Your task to perform on an android device: turn on notifications settings in the gmail app Image 0: 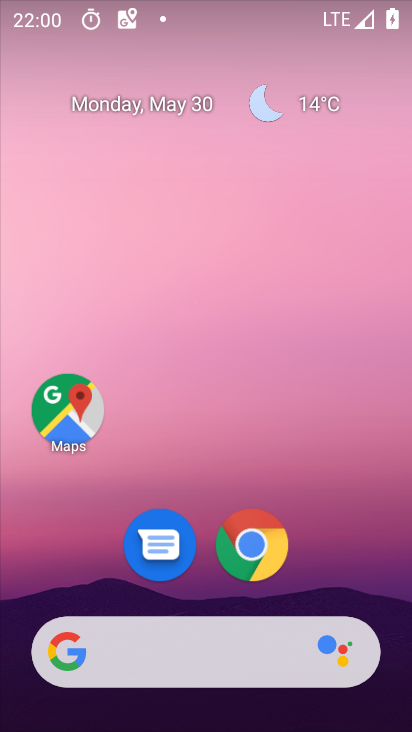
Step 0: drag from (329, 585) to (353, 105)
Your task to perform on an android device: turn on notifications settings in the gmail app Image 1: 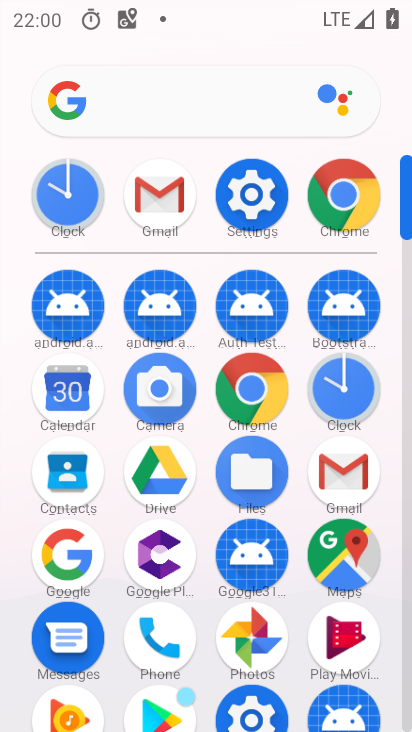
Step 1: click (351, 480)
Your task to perform on an android device: turn on notifications settings in the gmail app Image 2: 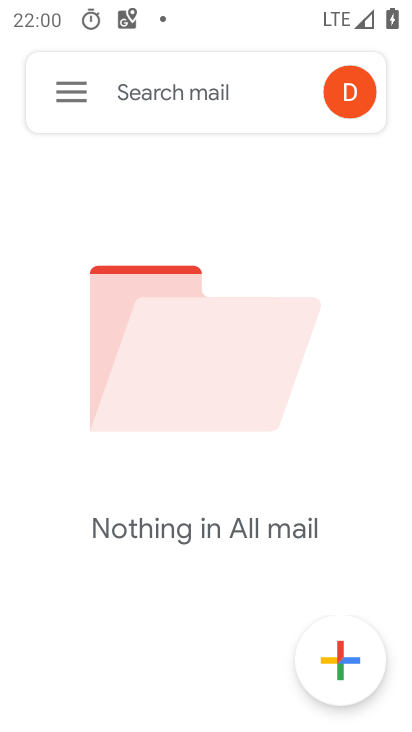
Step 2: click (71, 98)
Your task to perform on an android device: turn on notifications settings in the gmail app Image 3: 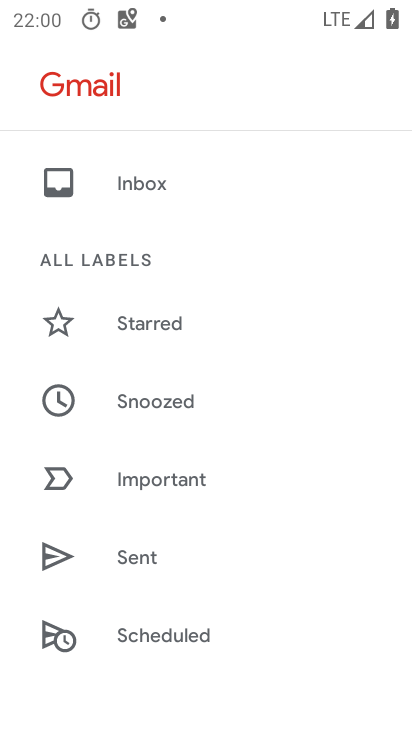
Step 3: drag from (251, 662) to (253, 244)
Your task to perform on an android device: turn on notifications settings in the gmail app Image 4: 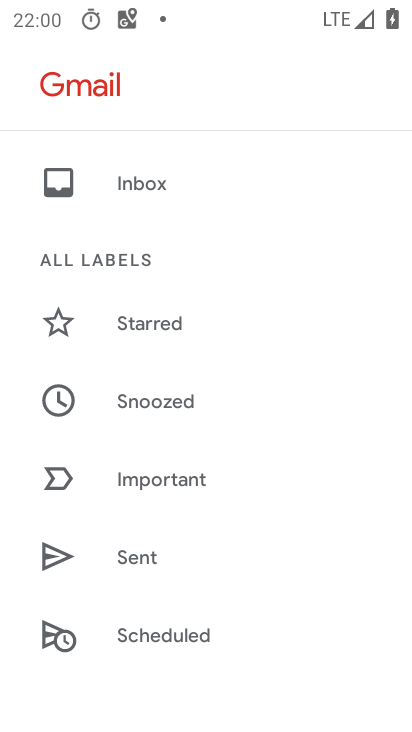
Step 4: drag from (235, 613) to (288, 205)
Your task to perform on an android device: turn on notifications settings in the gmail app Image 5: 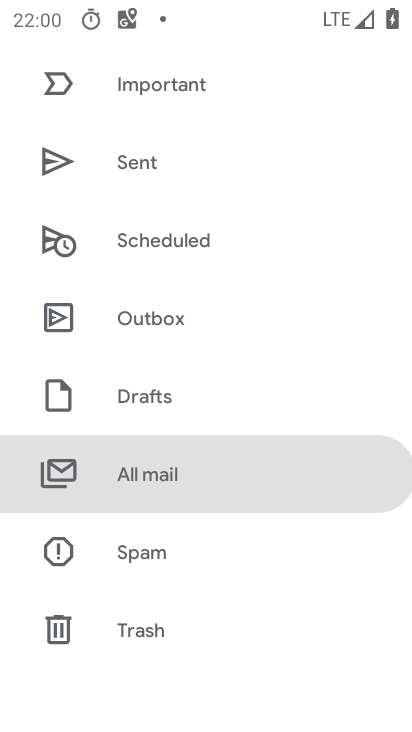
Step 5: drag from (225, 589) to (268, 47)
Your task to perform on an android device: turn on notifications settings in the gmail app Image 6: 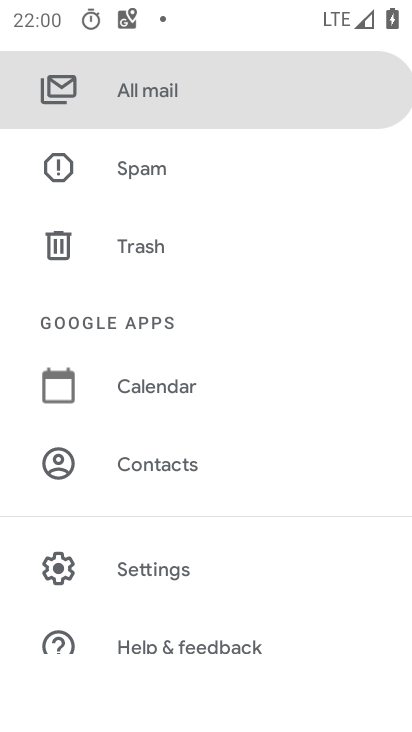
Step 6: click (148, 565)
Your task to perform on an android device: turn on notifications settings in the gmail app Image 7: 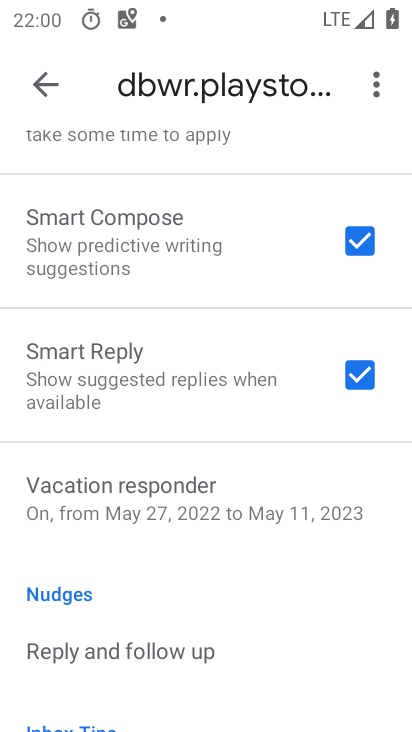
Step 7: drag from (234, 269) to (216, 671)
Your task to perform on an android device: turn on notifications settings in the gmail app Image 8: 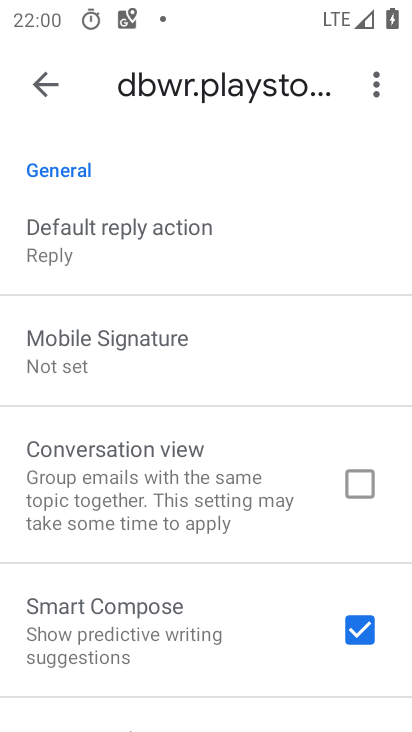
Step 8: drag from (261, 291) to (217, 624)
Your task to perform on an android device: turn on notifications settings in the gmail app Image 9: 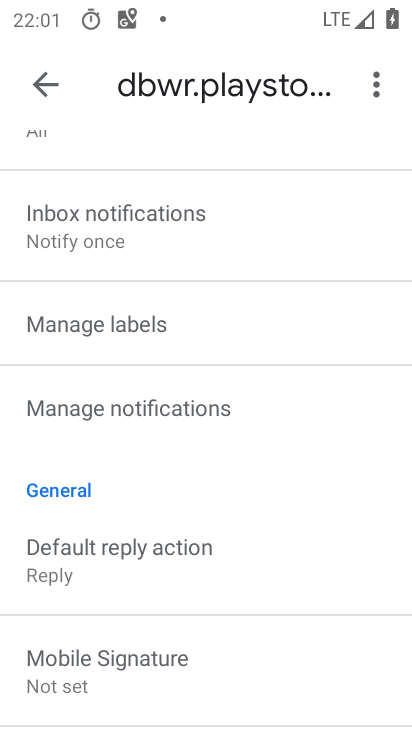
Step 9: click (225, 411)
Your task to perform on an android device: turn on notifications settings in the gmail app Image 10: 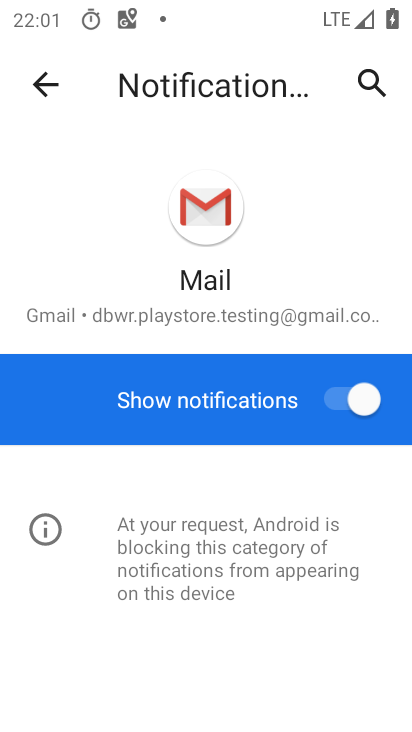
Step 10: task complete